Your task to perform on an android device: Open CNN.com Image 0: 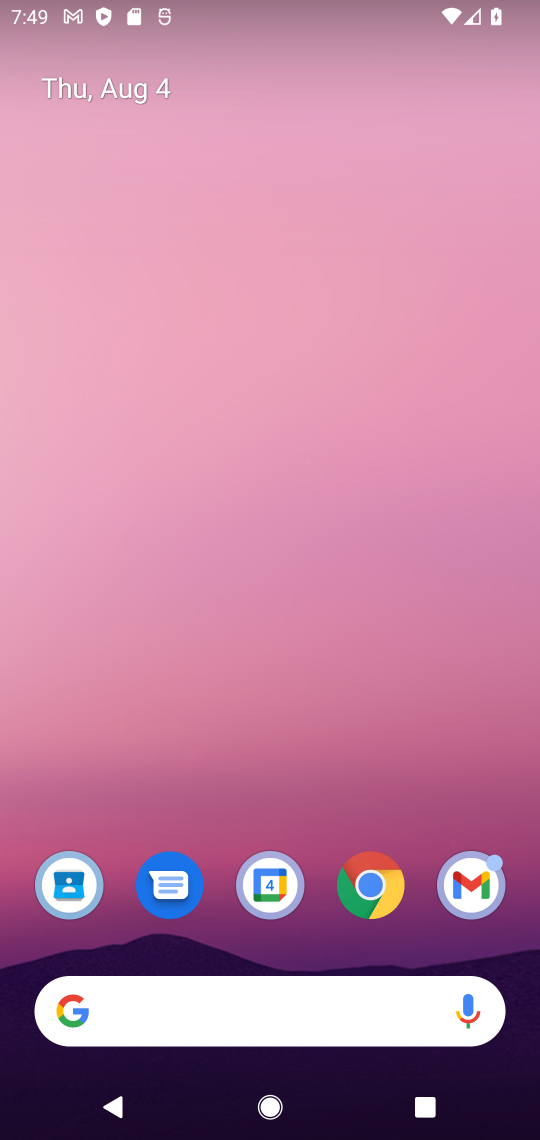
Step 0: press home button
Your task to perform on an android device: Open CNN.com Image 1: 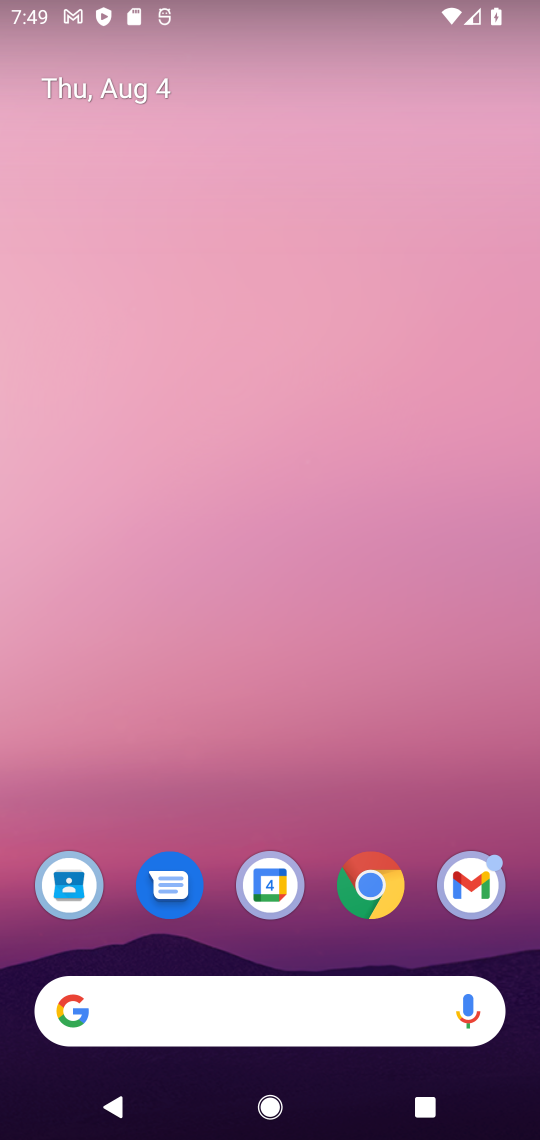
Step 1: press home button
Your task to perform on an android device: Open CNN.com Image 2: 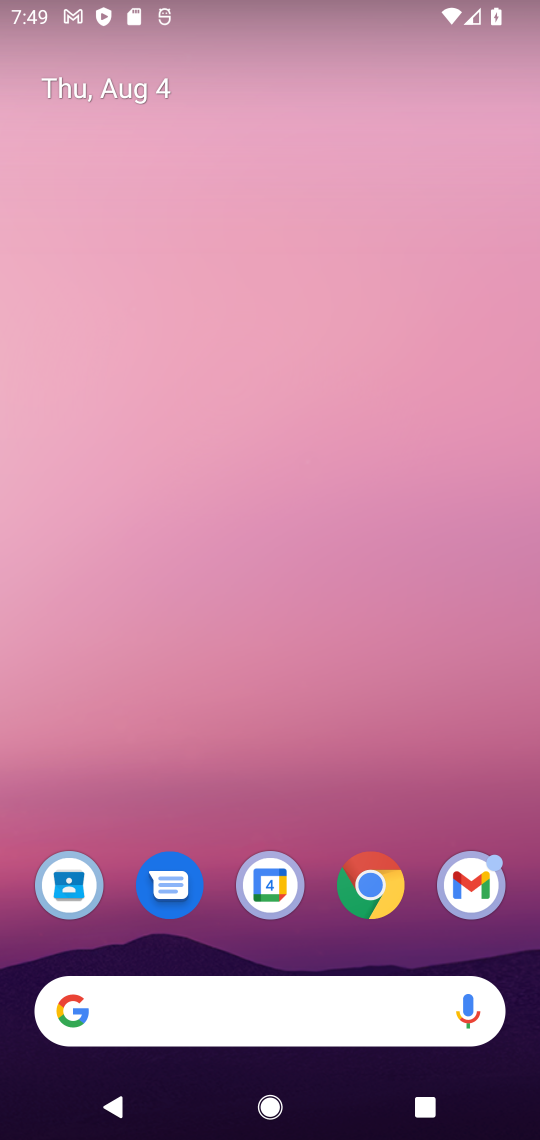
Step 2: press home button
Your task to perform on an android device: Open CNN.com Image 3: 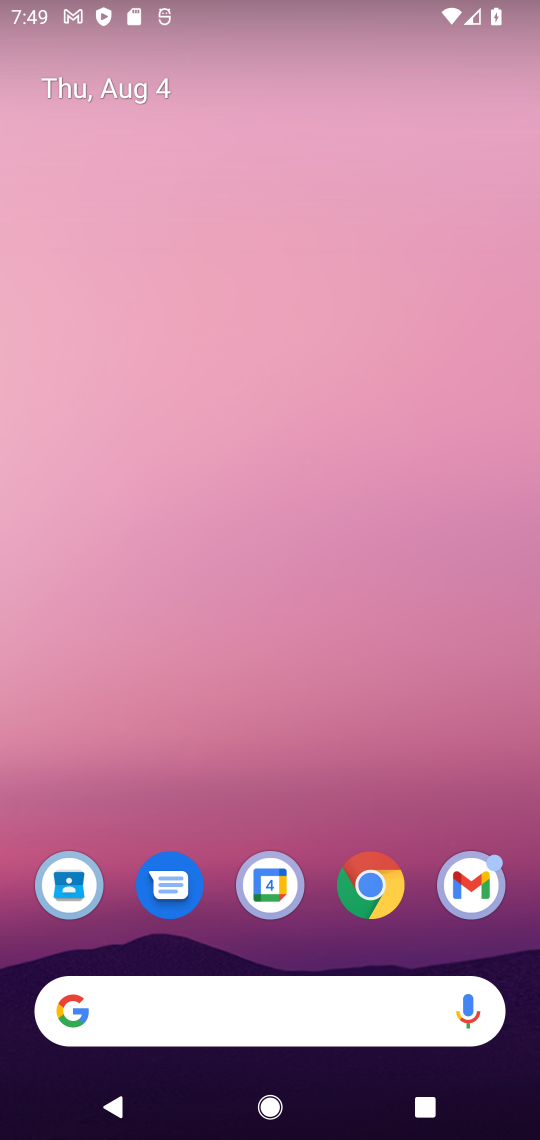
Step 3: click (386, 905)
Your task to perform on an android device: Open CNN.com Image 4: 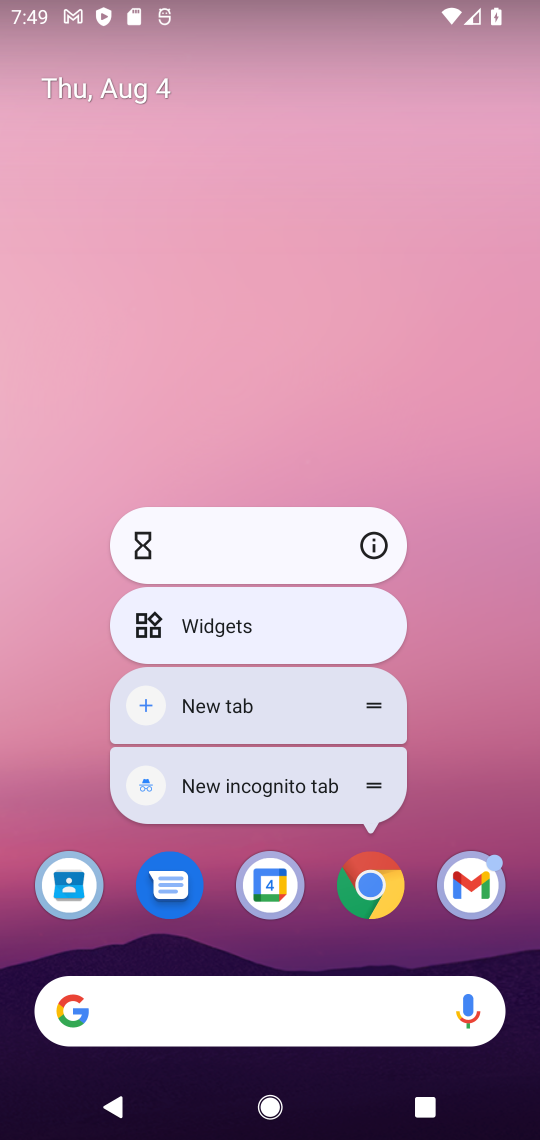
Step 4: click (386, 905)
Your task to perform on an android device: Open CNN.com Image 5: 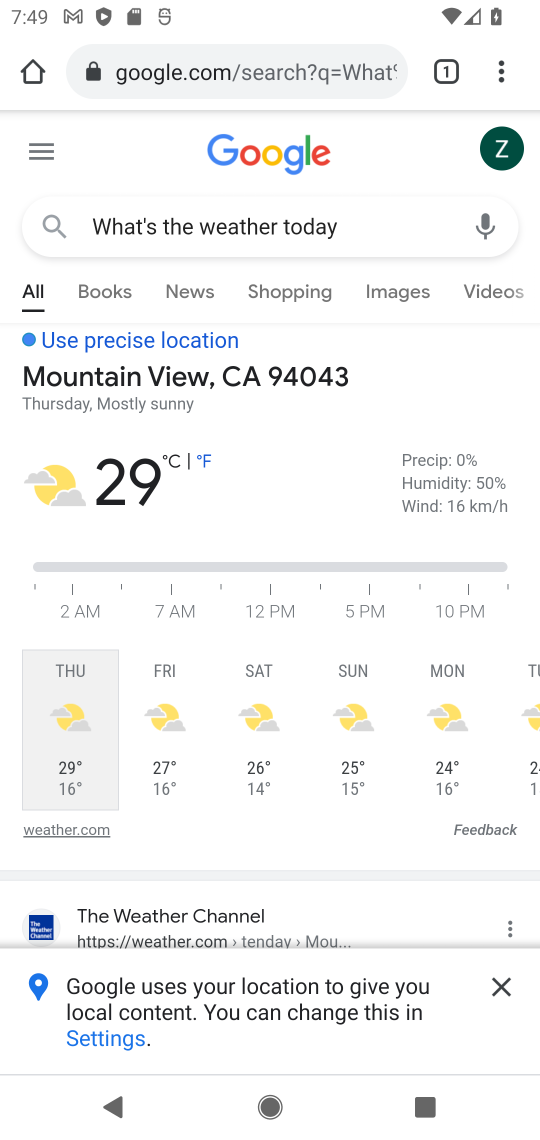
Step 5: click (263, 74)
Your task to perform on an android device: Open CNN.com Image 6: 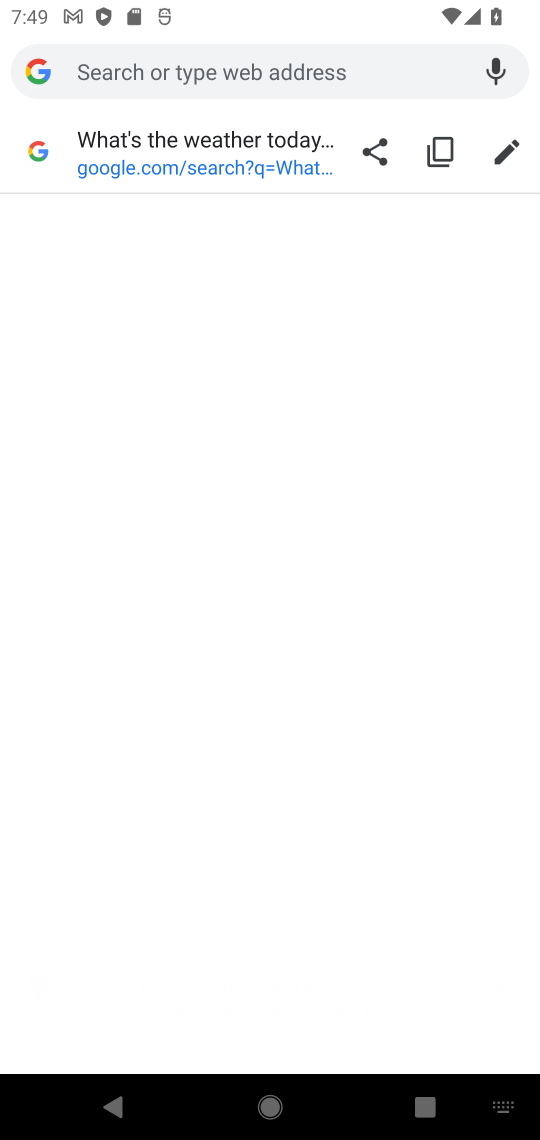
Step 6: type "CNN.com"
Your task to perform on an android device: Open CNN.com Image 7: 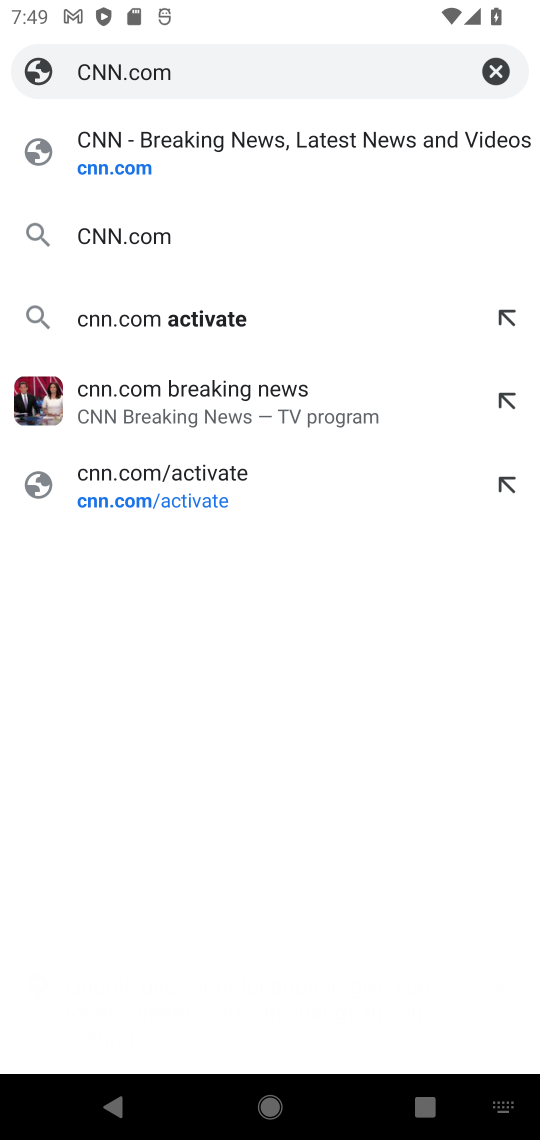
Step 7: click (130, 148)
Your task to perform on an android device: Open CNN.com Image 8: 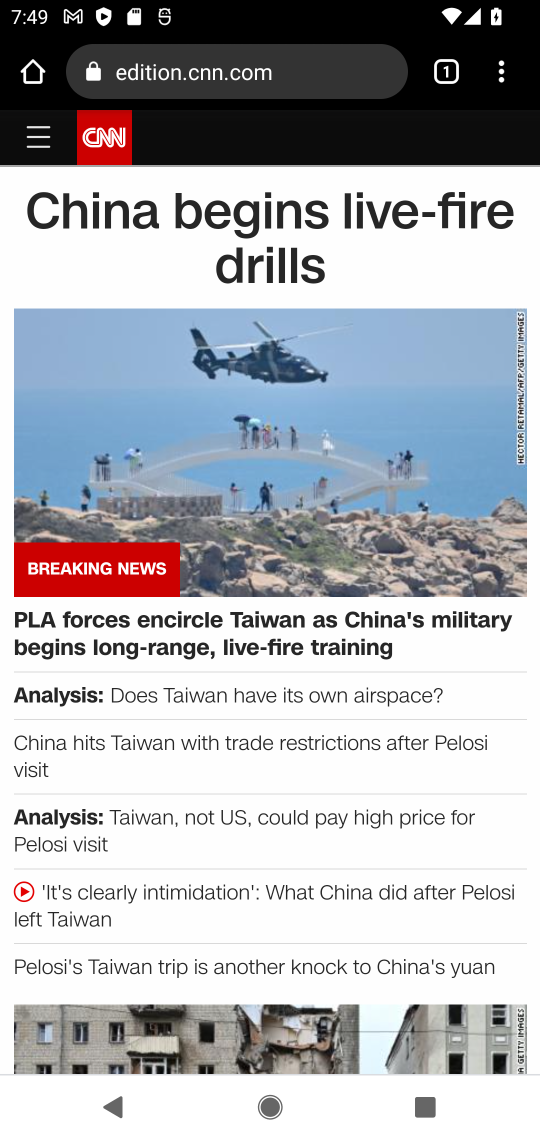
Step 8: task complete